Your task to perform on an android device: Show me recent news Image 0: 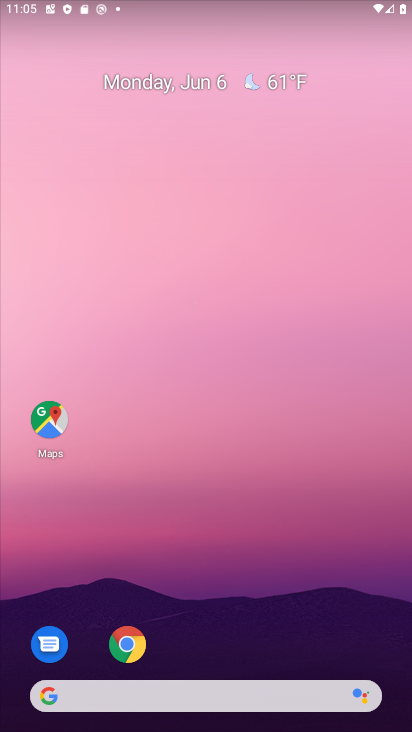
Step 0: drag from (194, 617) to (232, 441)
Your task to perform on an android device: Show me recent news Image 1: 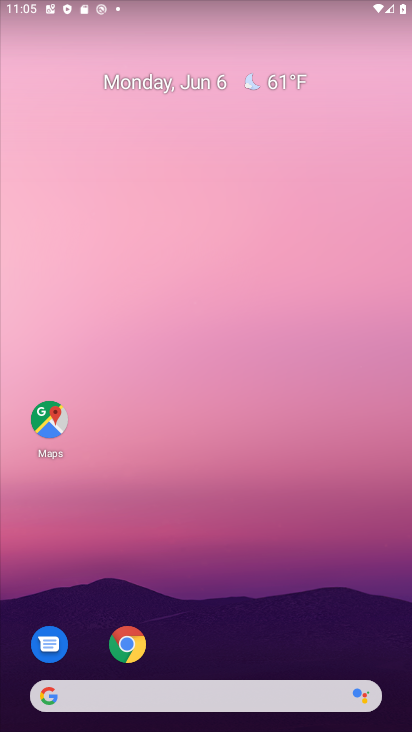
Step 1: drag from (225, 612) to (304, 328)
Your task to perform on an android device: Show me recent news Image 2: 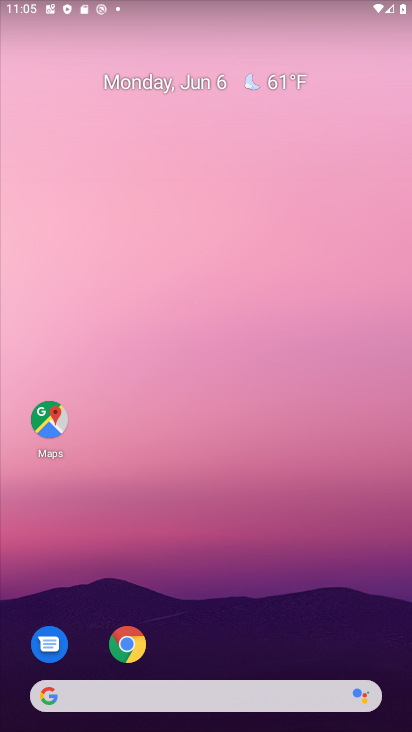
Step 2: drag from (218, 659) to (276, 247)
Your task to perform on an android device: Show me recent news Image 3: 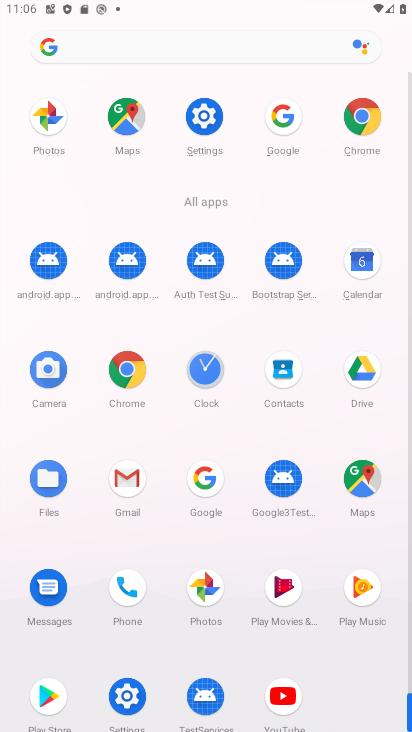
Step 3: click (202, 486)
Your task to perform on an android device: Show me recent news Image 4: 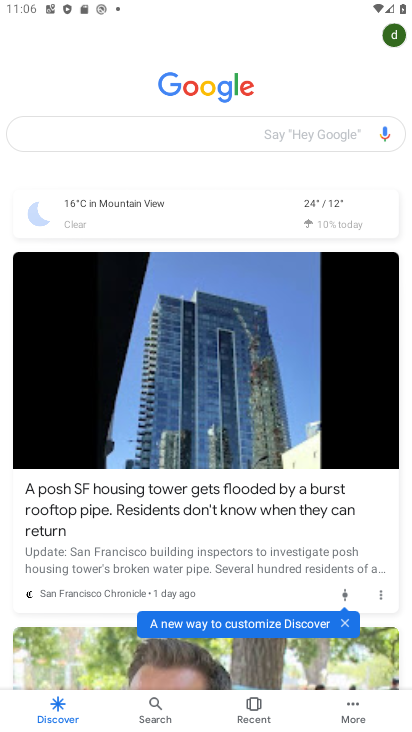
Step 4: click (251, 129)
Your task to perform on an android device: Show me recent news Image 5: 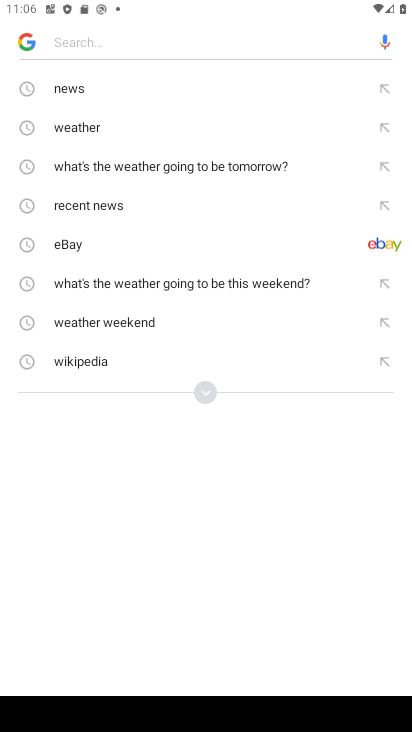
Step 5: click (187, 66)
Your task to perform on an android device: Show me recent news Image 6: 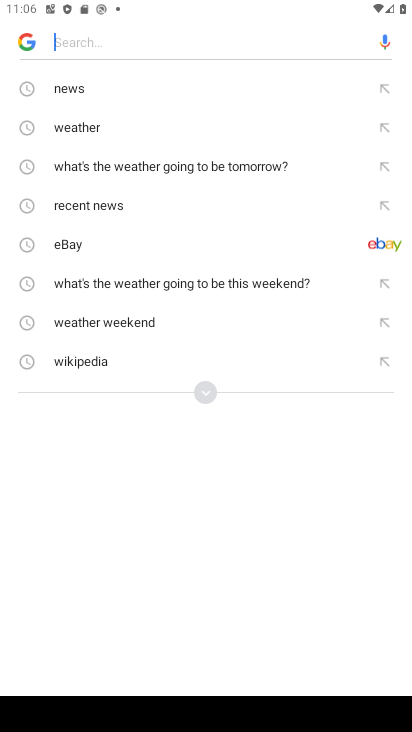
Step 6: click (133, 92)
Your task to perform on an android device: Show me recent news Image 7: 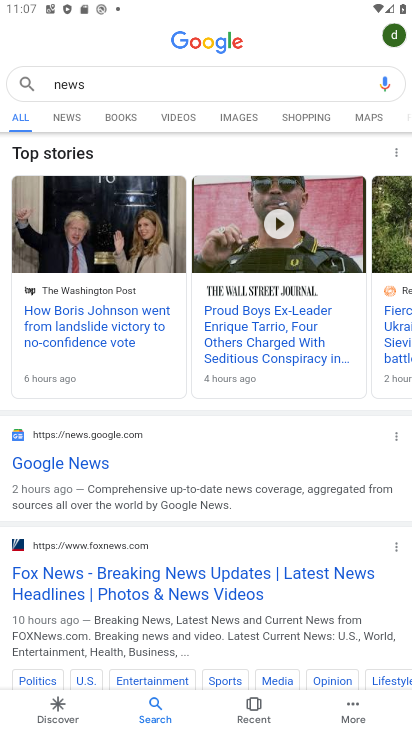
Step 7: click (59, 117)
Your task to perform on an android device: Show me recent news Image 8: 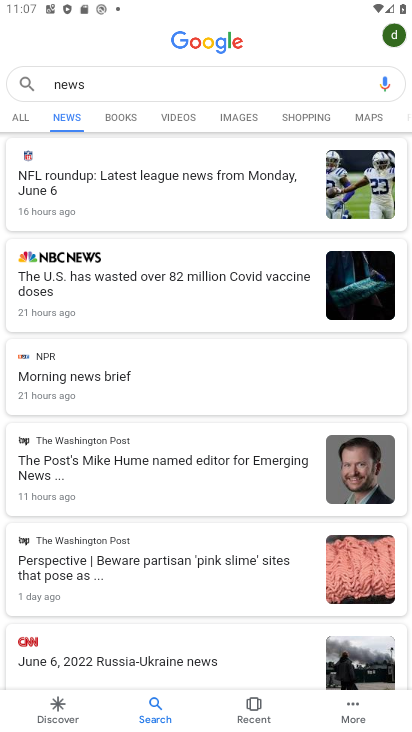
Step 8: task complete